Your task to perform on an android device: Show me popular videos on Youtube Image 0: 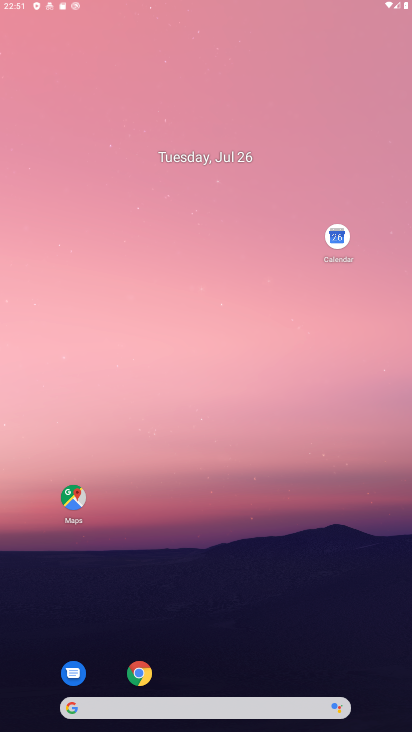
Step 0: drag from (164, 643) to (153, 162)
Your task to perform on an android device: Show me popular videos on Youtube Image 1: 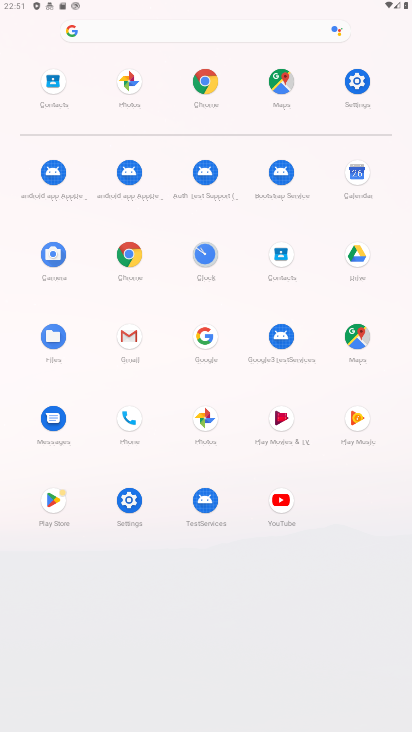
Step 1: click (278, 499)
Your task to perform on an android device: Show me popular videos on Youtube Image 2: 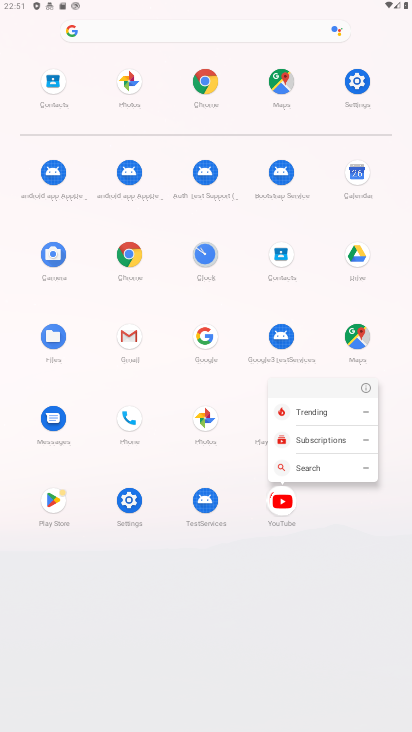
Step 2: click (279, 501)
Your task to perform on an android device: Show me popular videos on Youtube Image 3: 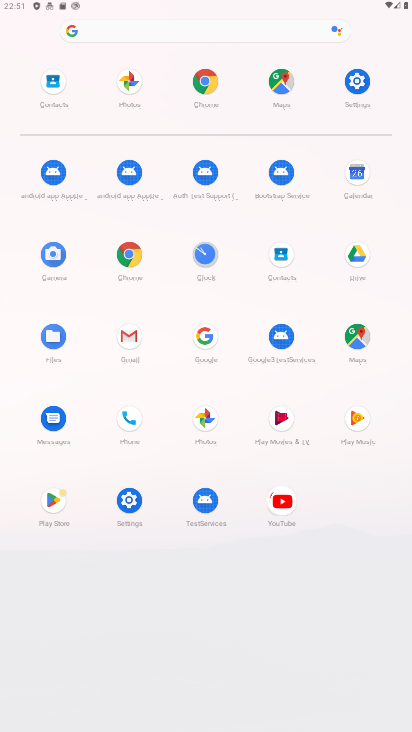
Step 3: click (285, 502)
Your task to perform on an android device: Show me popular videos on Youtube Image 4: 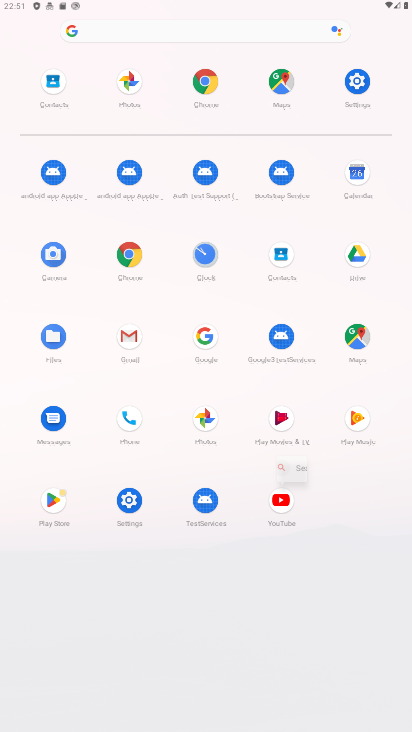
Step 4: click (285, 502)
Your task to perform on an android device: Show me popular videos on Youtube Image 5: 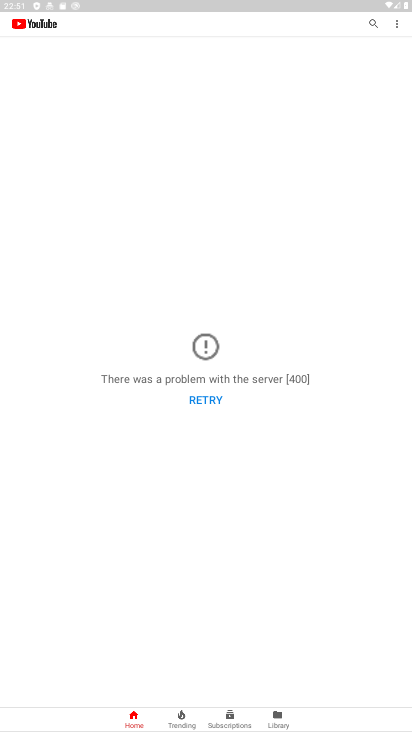
Step 5: click (274, 718)
Your task to perform on an android device: Show me popular videos on Youtube Image 6: 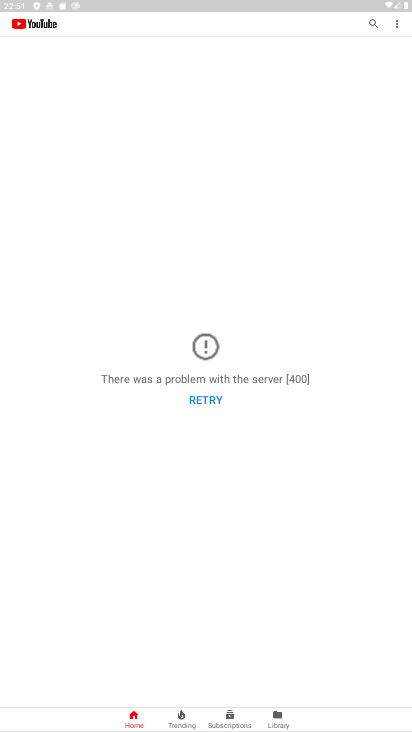
Step 6: click (274, 719)
Your task to perform on an android device: Show me popular videos on Youtube Image 7: 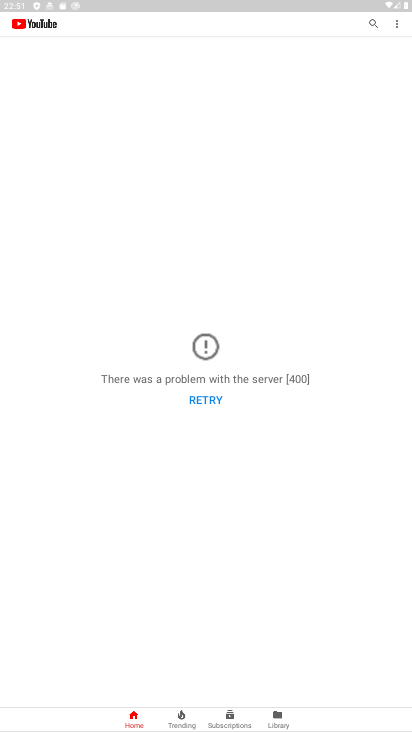
Step 7: click (276, 722)
Your task to perform on an android device: Show me popular videos on Youtube Image 8: 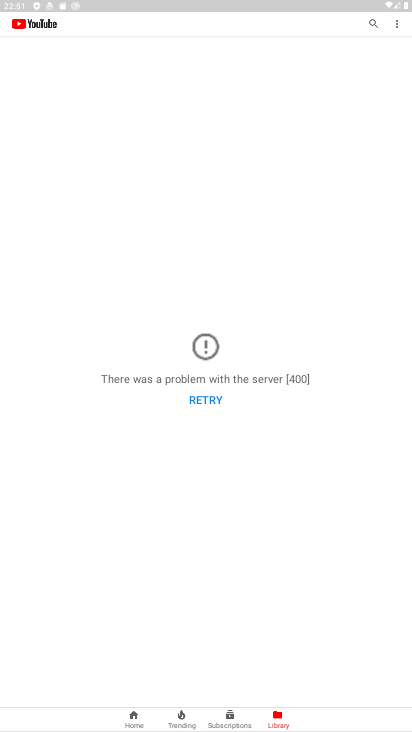
Step 8: task complete